Your task to perform on an android device: Open sound settings Image 0: 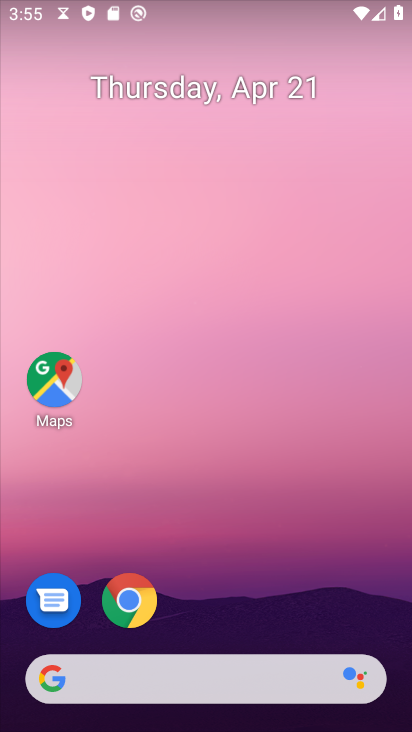
Step 0: drag from (239, 611) to (273, 54)
Your task to perform on an android device: Open sound settings Image 1: 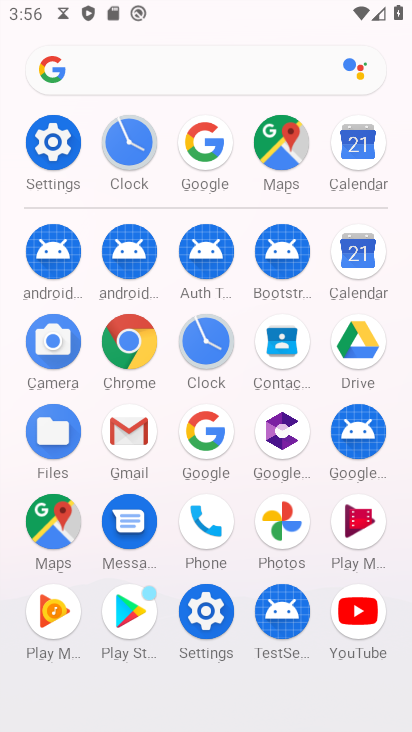
Step 1: click (54, 141)
Your task to perform on an android device: Open sound settings Image 2: 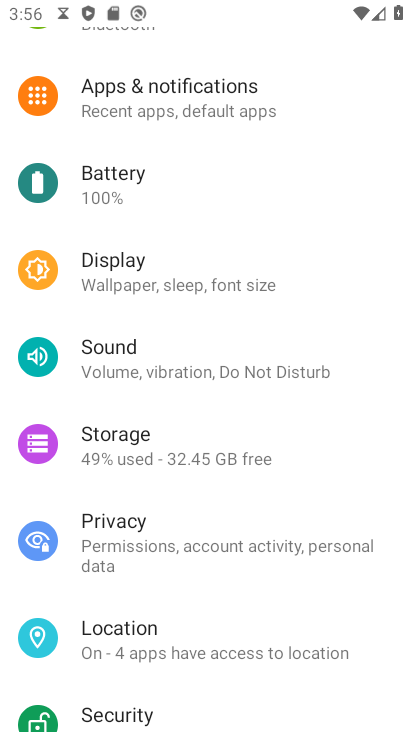
Step 2: click (137, 377)
Your task to perform on an android device: Open sound settings Image 3: 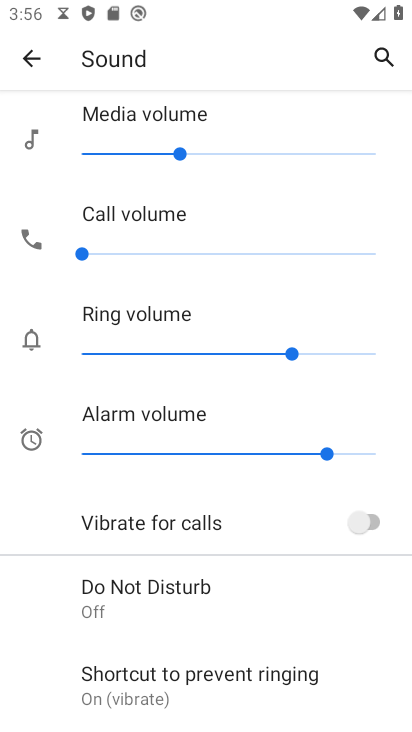
Step 3: task complete